Your task to perform on an android device: find snoozed emails in the gmail app Image 0: 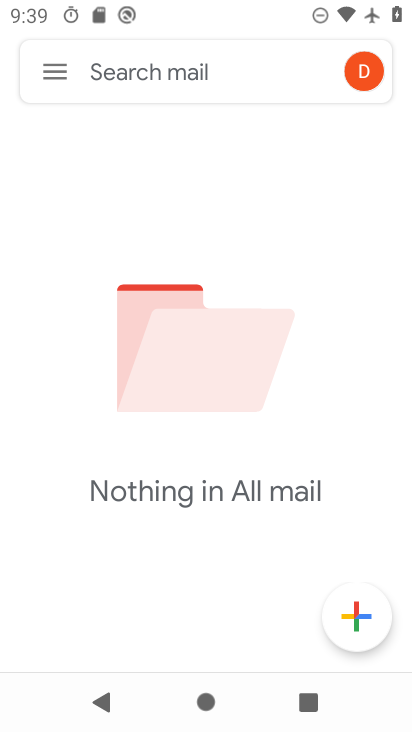
Step 0: click (44, 78)
Your task to perform on an android device: find snoozed emails in the gmail app Image 1: 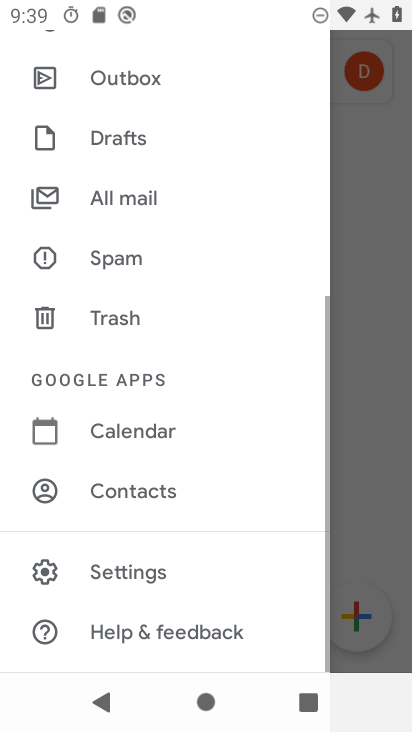
Step 1: drag from (210, 152) to (204, 639)
Your task to perform on an android device: find snoozed emails in the gmail app Image 2: 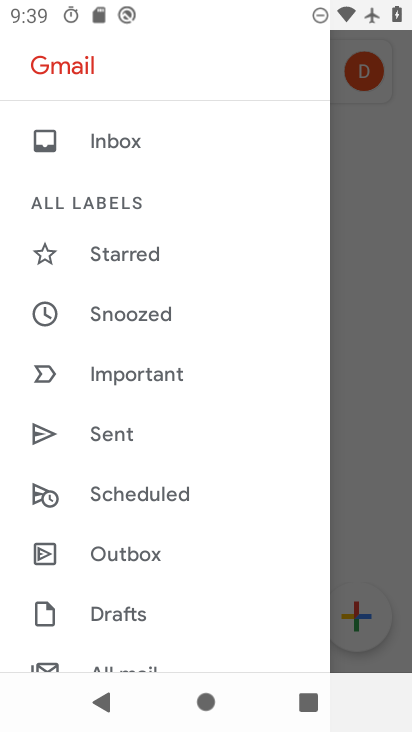
Step 2: click (148, 313)
Your task to perform on an android device: find snoozed emails in the gmail app Image 3: 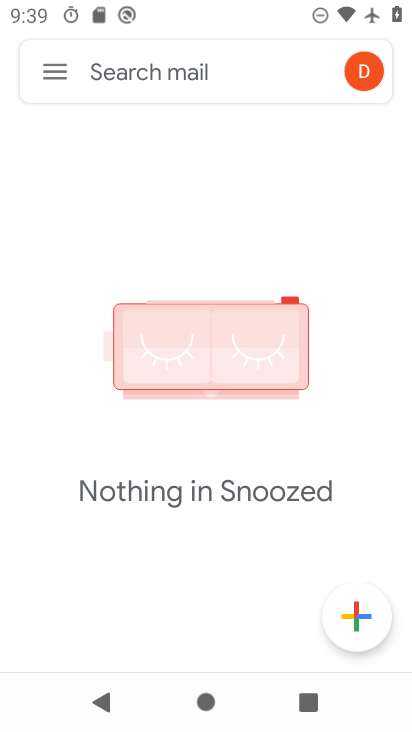
Step 3: task complete